Your task to perform on an android device: add a contact Image 0: 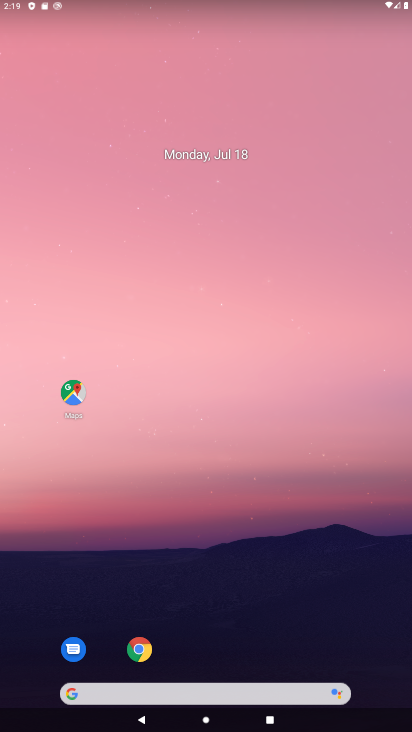
Step 0: drag from (396, 633) to (324, 189)
Your task to perform on an android device: add a contact Image 1: 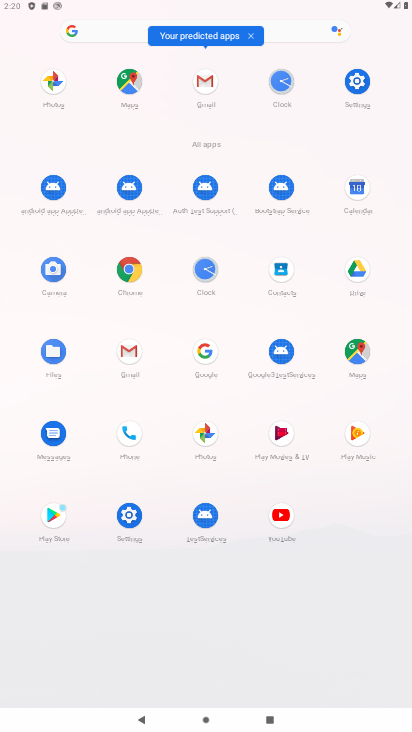
Step 1: click (368, 92)
Your task to perform on an android device: add a contact Image 2: 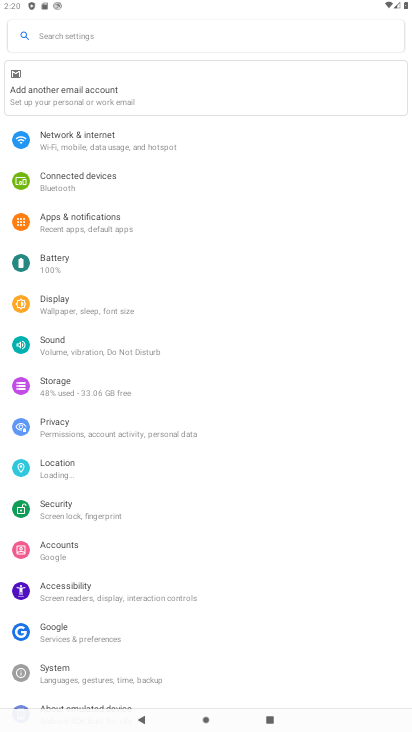
Step 2: press home button
Your task to perform on an android device: add a contact Image 3: 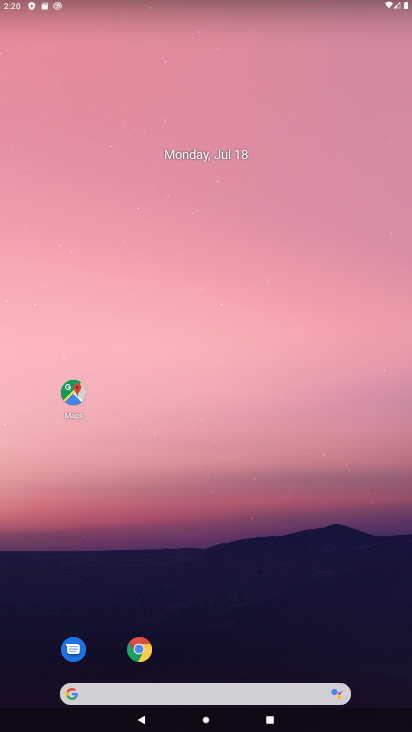
Step 3: drag from (331, 616) to (205, 147)
Your task to perform on an android device: add a contact Image 4: 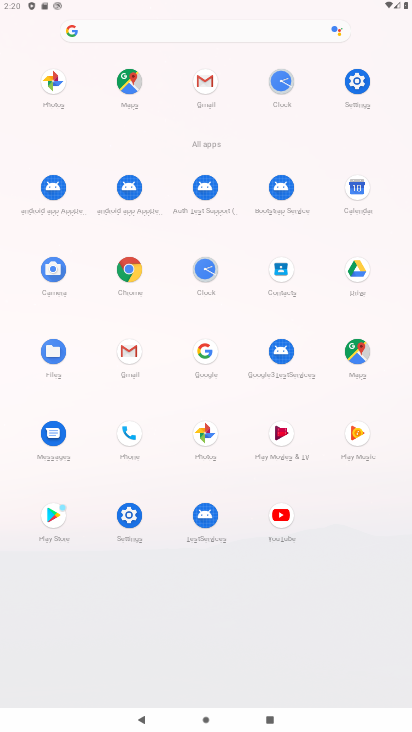
Step 4: click (283, 274)
Your task to perform on an android device: add a contact Image 5: 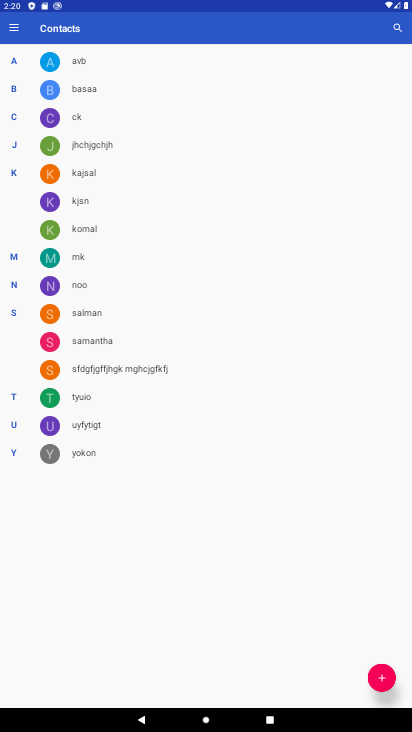
Step 5: press home button
Your task to perform on an android device: add a contact Image 6: 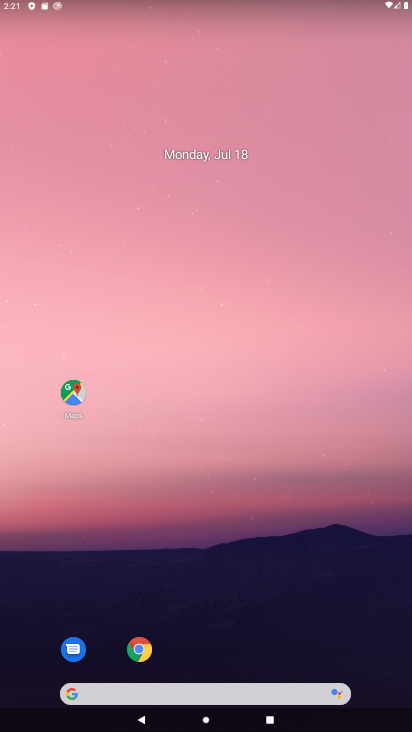
Step 6: drag from (334, 647) to (280, 26)
Your task to perform on an android device: add a contact Image 7: 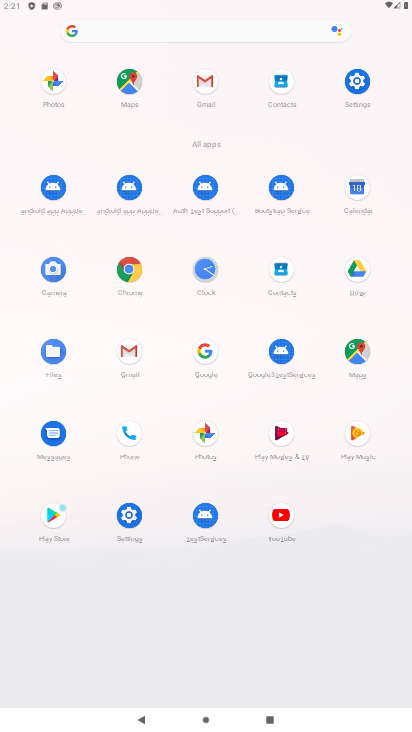
Step 7: click (283, 272)
Your task to perform on an android device: add a contact Image 8: 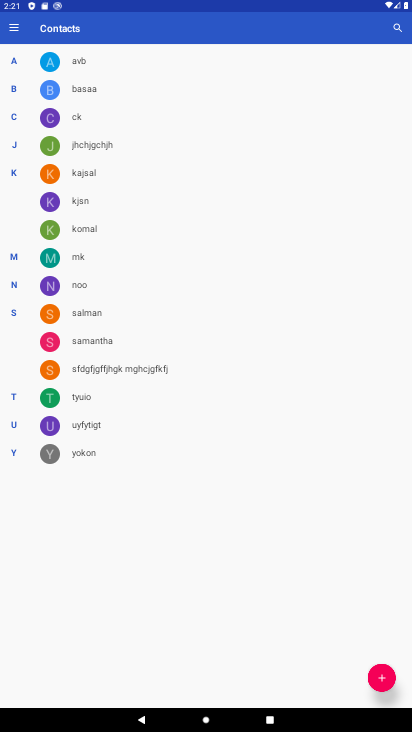
Step 8: click (385, 683)
Your task to perform on an android device: add a contact Image 9: 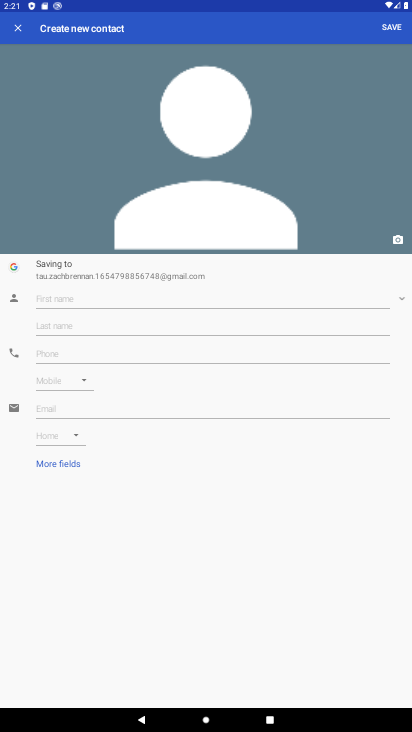
Step 9: click (202, 289)
Your task to perform on an android device: add a contact Image 10: 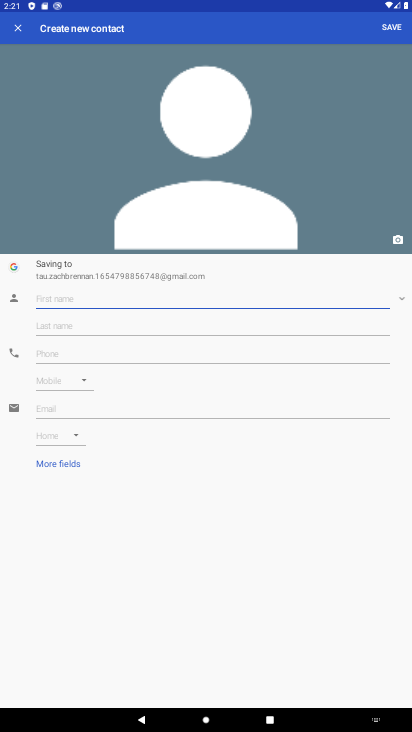
Step 10: type "hbhbhj"
Your task to perform on an android device: add a contact Image 11: 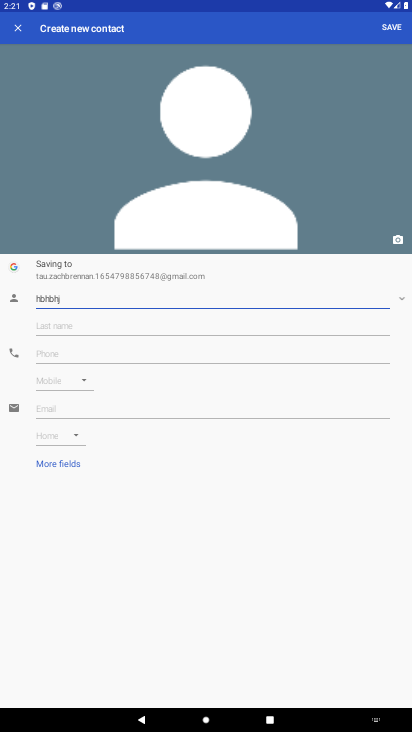
Step 11: click (182, 350)
Your task to perform on an android device: add a contact Image 12: 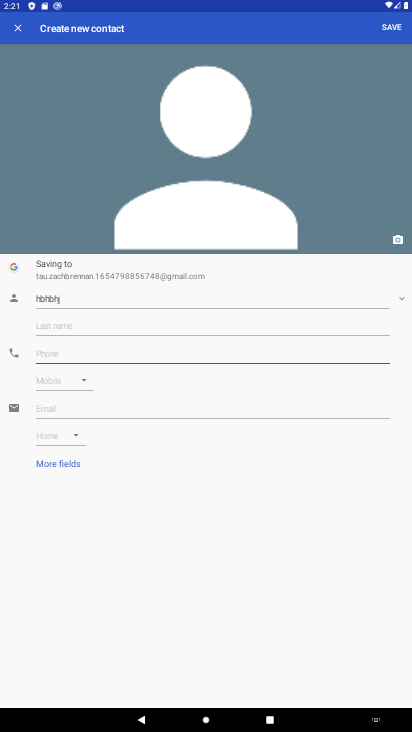
Step 12: type "y867687"
Your task to perform on an android device: add a contact Image 13: 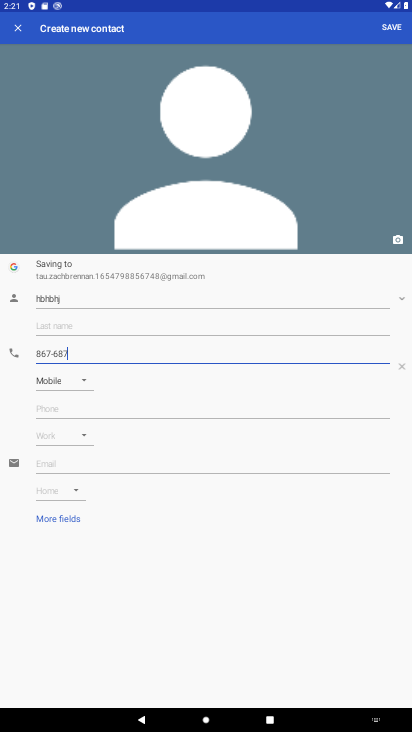
Step 13: click (386, 27)
Your task to perform on an android device: add a contact Image 14: 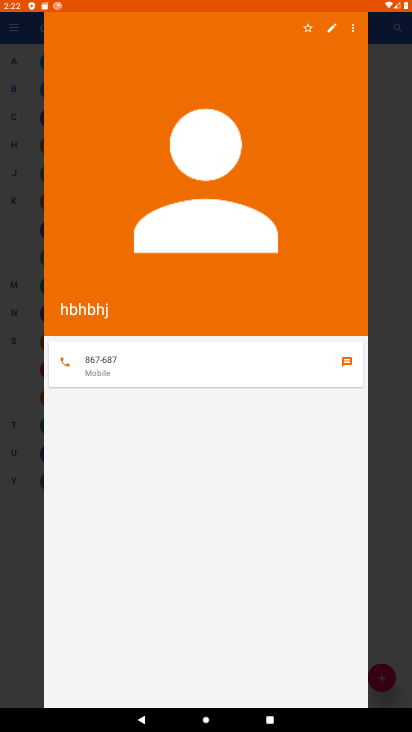
Step 14: task complete